Your task to perform on an android device: Open calendar and show me the first week of next month Image 0: 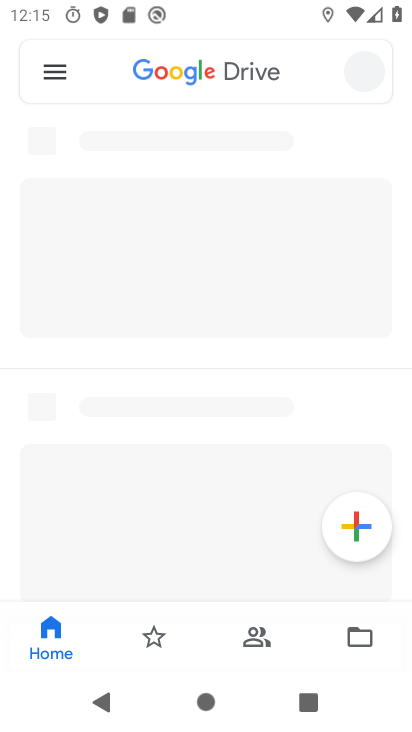
Step 0: drag from (346, 561) to (324, 285)
Your task to perform on an android device: Open calendar and show me the first week of next month Image 1: 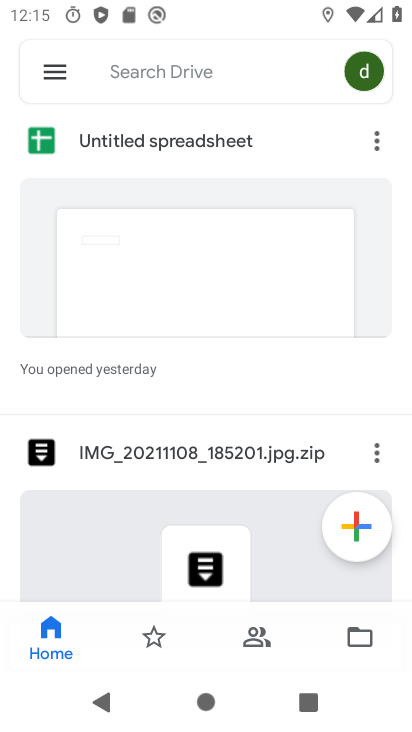
Step 1: press home button
Your task to perform on an android device: Open calendar and show me the first week of next month Image 2: 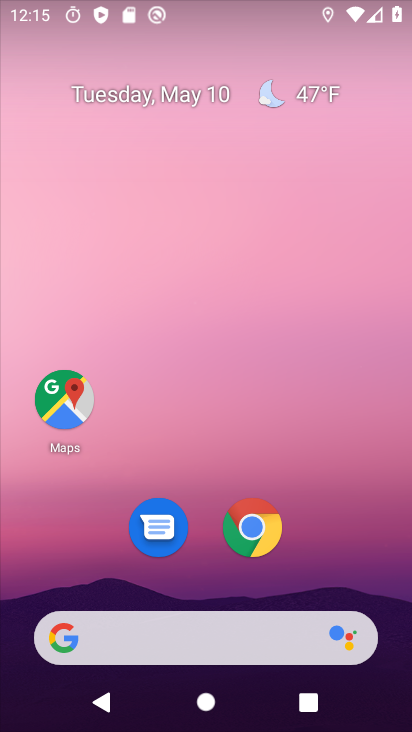
Step 2: drag from (345, 560) to (304, 128)
Your task to perform on an android device: Open calendar and show me the first week of next month Image 3: 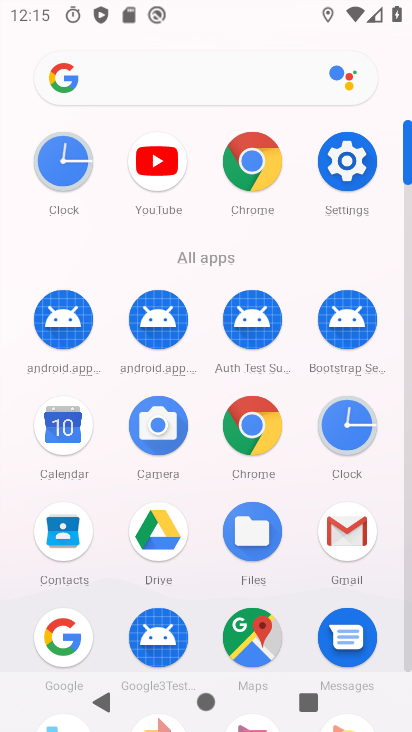
Step 3: click (76, 438)
Your task to perform on an android device: Open calendar and show me the first week of next month Image 4: 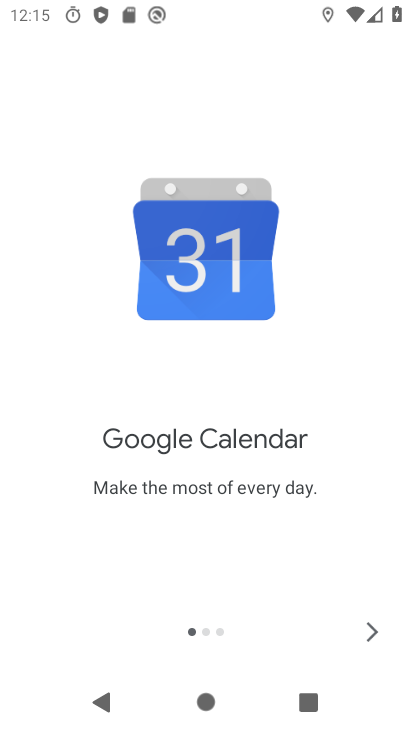
Step 4: click (372, 624)
Your task to perform on an android device: Open calendar and show me the first week of next month Image 5: 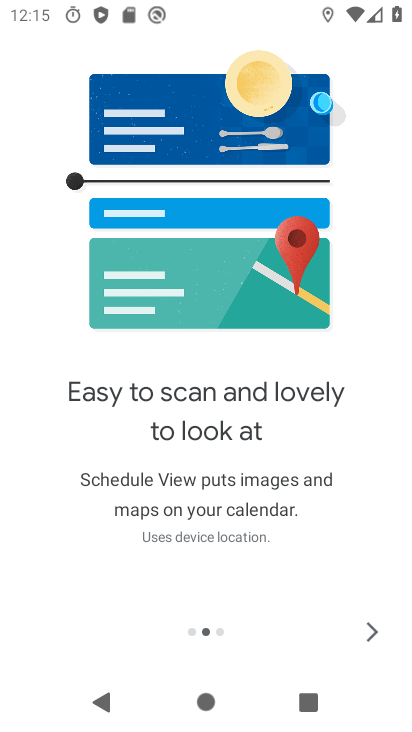
Step 5: click (372, 624)
Your task to perform on an android device: Open calendar and show me the first week of next month Image 6: 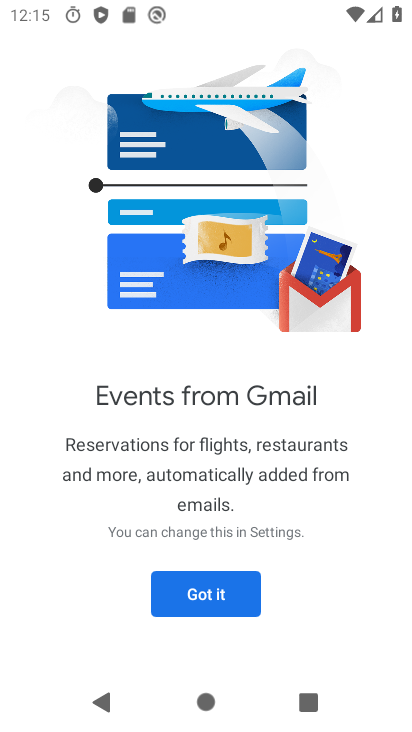
Step 6: click (238, 596)
Your task to perform on an android device: Open calendar and show me the first week of next month Image 7: 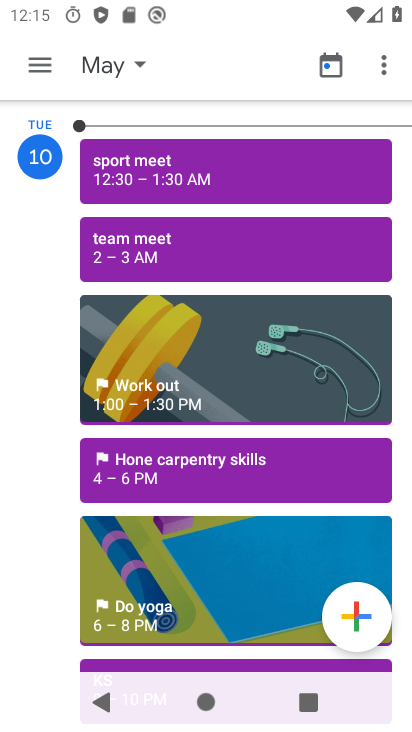
Step 7: click (102, 75)
Your task to perform on an android device: Open calendar and show me the first week of next month Image 8: 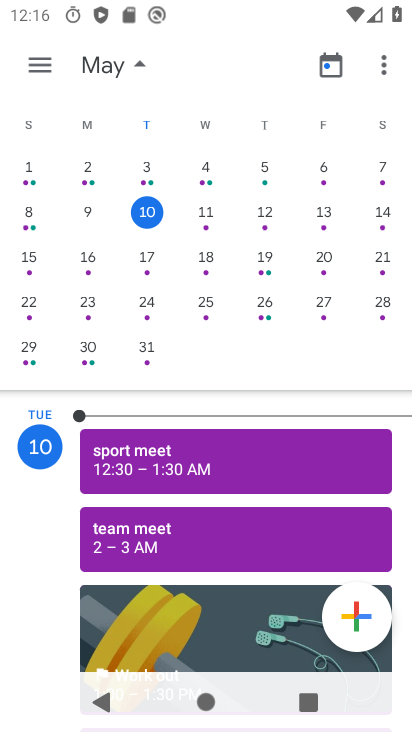
Step 8: task complete